Your task to perform on an android device: add a contact Image 0: 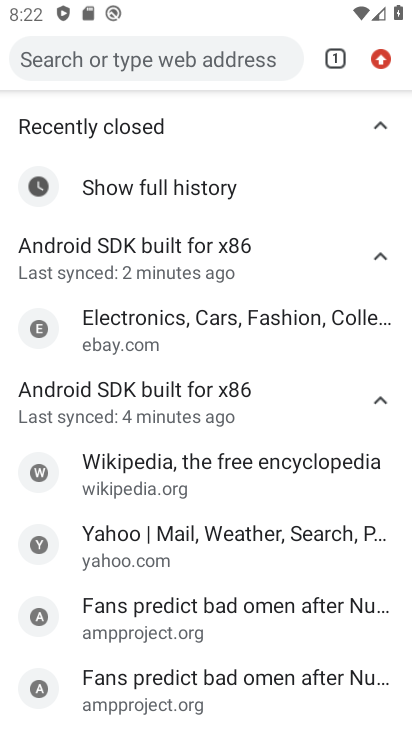
Step 0: press home button
Your task to perform on an android device: add a contact Image 1: 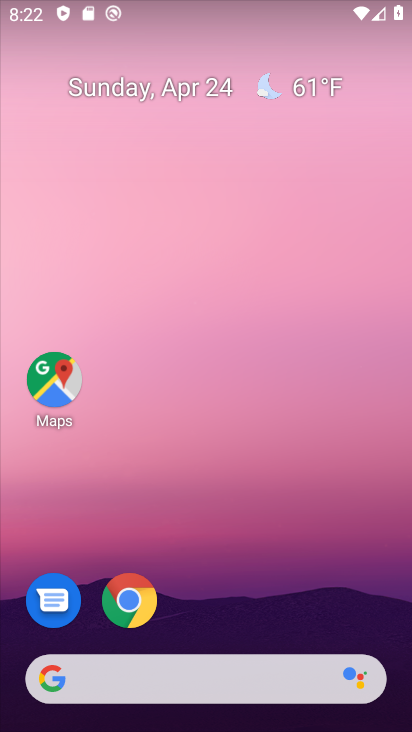
Step 1: drag from (208, 723) to (194, 118)
Your task to perform on an android device: add a contact Image 2: 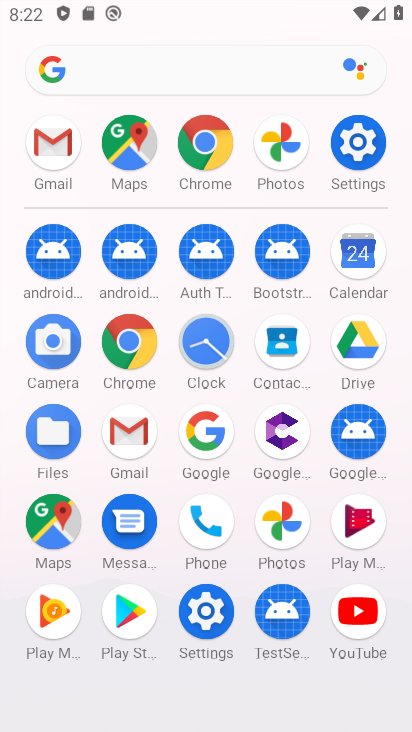
Step 2: click (284, 347)
Your task to perform on an android device: add a contact Image 3: 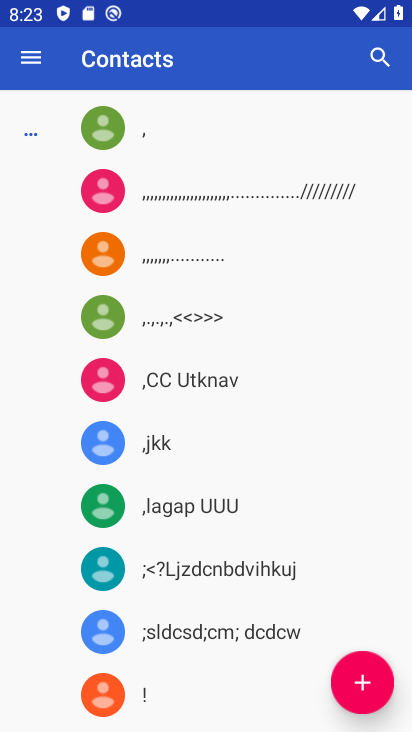
Step 3: click (355, 682)
Your task to perform on an android device: add a contact Image 4: 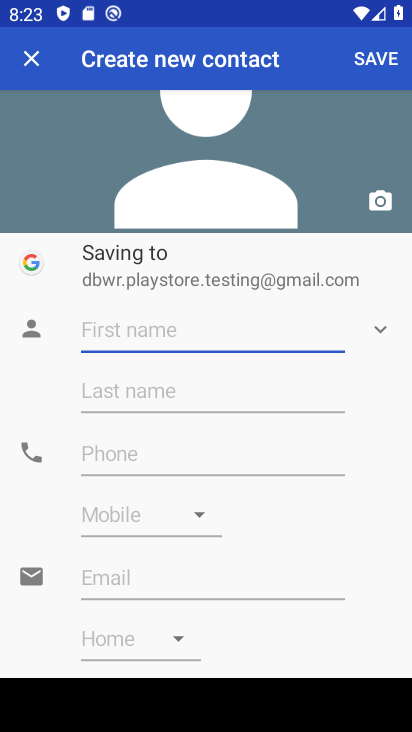
Step 4: type "nikhillllllnnnn"
Your task to perform on an android device: add a contact Image 5: 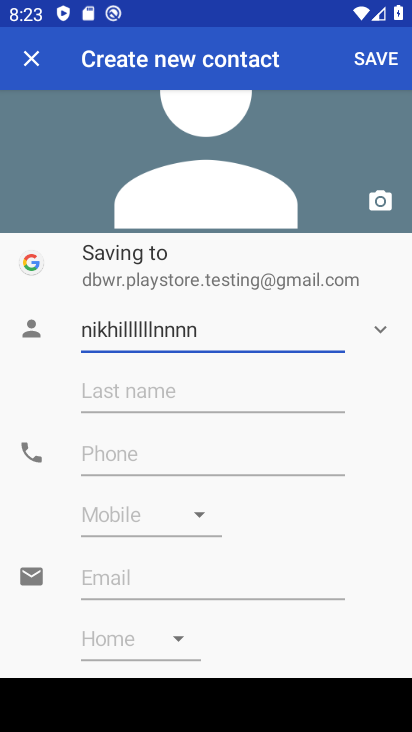
Step 5: click (132, 449)
Your task to perform on an android device: add a contact Image 6: 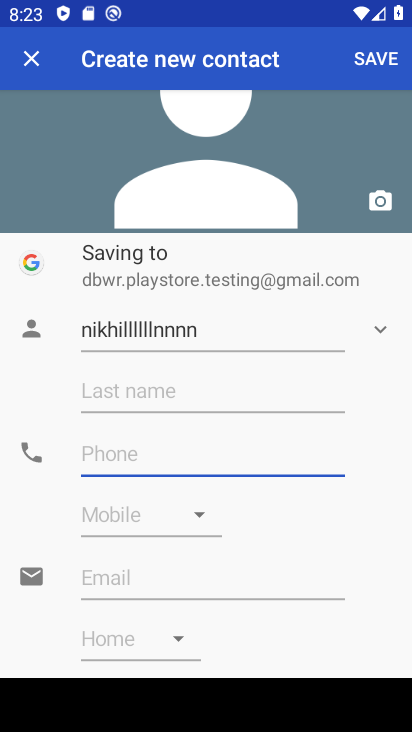
Step 6: type "987766"
Your task to perform on an android device: add a contact Image 7: 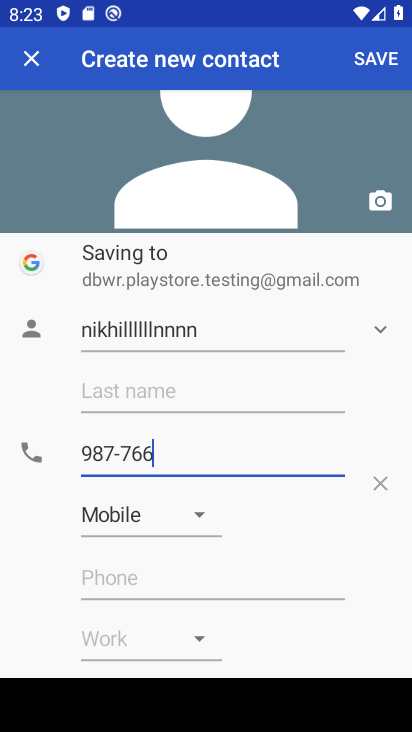
Step 7: click (383, 54)
Your task to perform on an android device: add a contact Image 8: 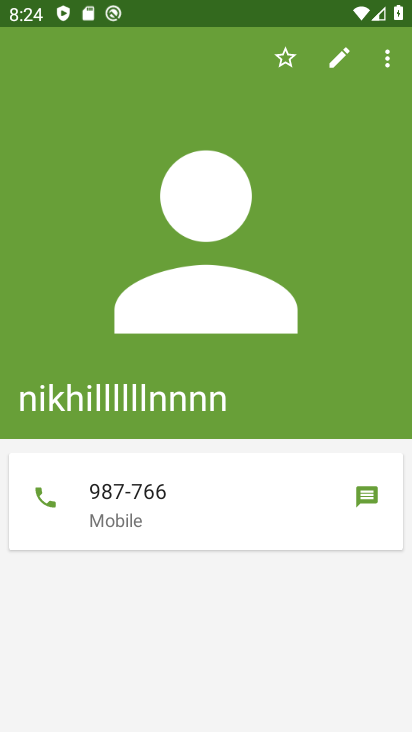
Step 8: task complete